Your task to perform on an android device: turn off smart reply in the gmail app Image 0: 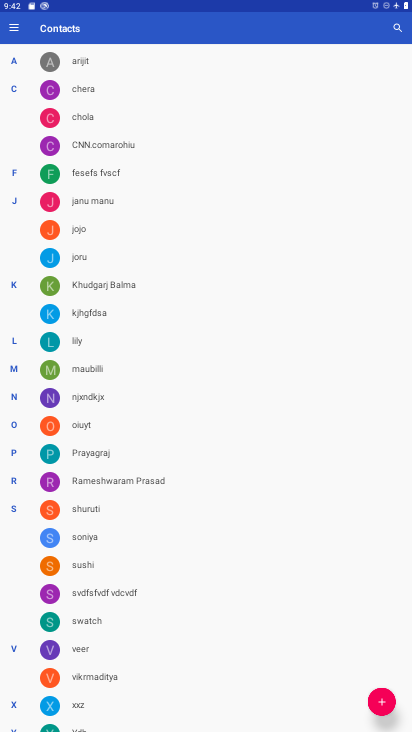
Step 0: press home button
Your task to perform on an android device: turn off smart reply in the gmail app Image 1: 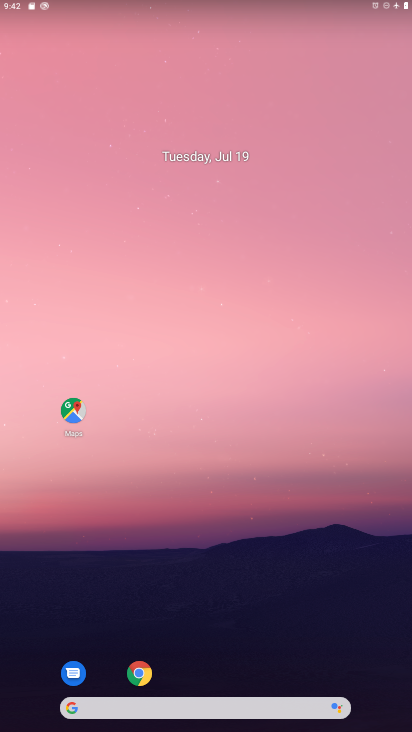
Step 1: drag from (382, 661) to (325, 247)
Your task to perform on an android device: turn off smart reply in the gmail app Image 2: 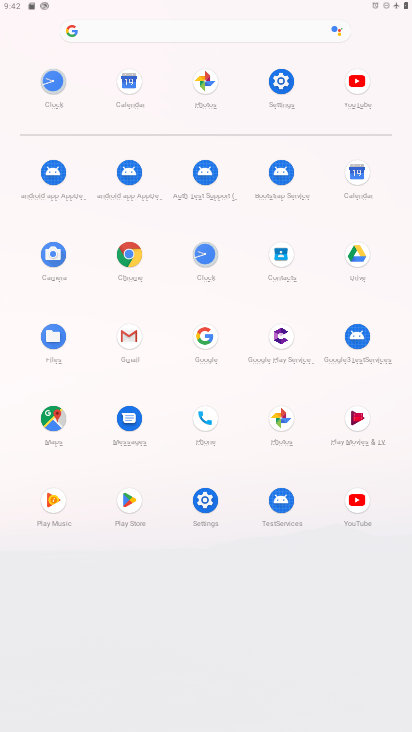
Step 2: click (125, 334)
Your task to perform on an android device: turn off smart reply in the gmail app Image 3: 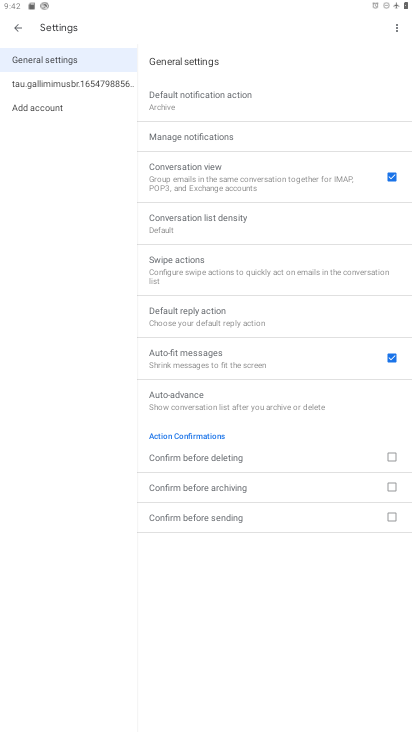
Step 3: click (57, 80)
Your task to perform on an android device: turn off smart reply in the gmail app Image 4: 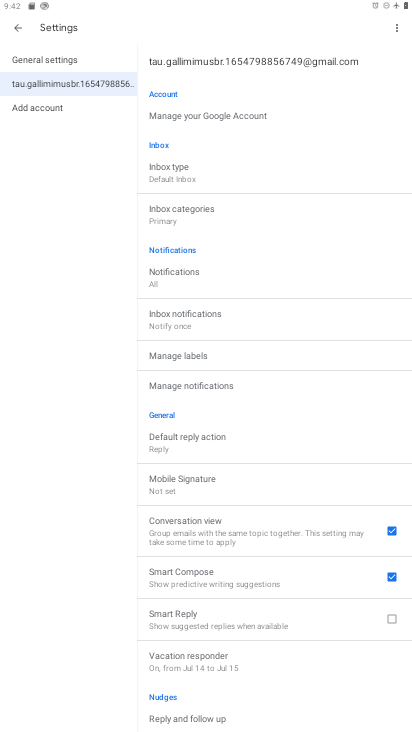
Step 4: task complete